Your task to perform on an android device: Go to Wikipedia Image 0: 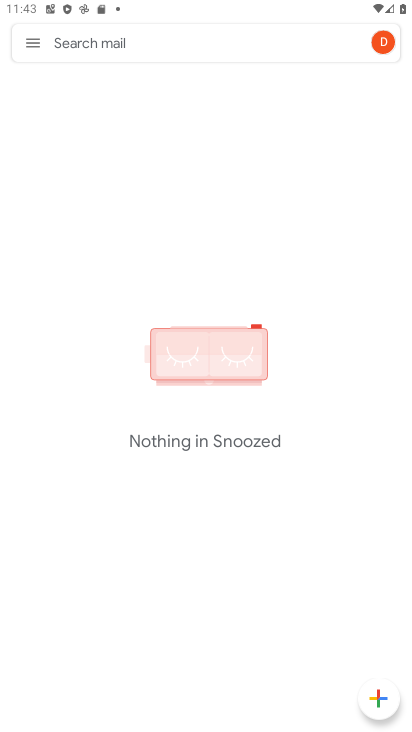
Step 0: press home button
Your task to perform on an android device: Go to Wikipedia Image 1: 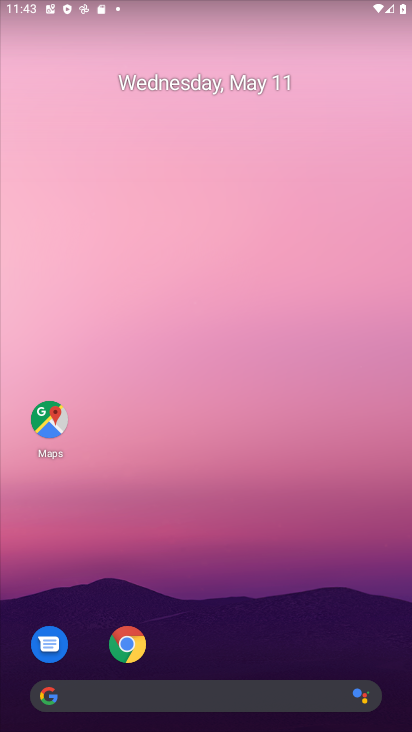
Step 1: drag from (218, 647) to (195, 207)
Your task to perform on an android device: Go to Wikipedia Image 2: 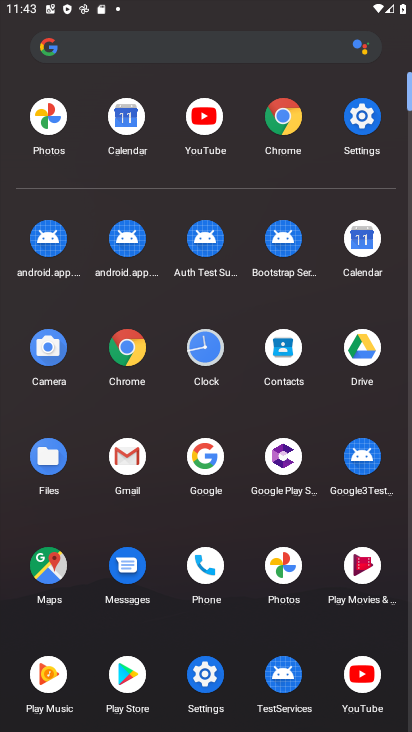
Step 2: click (278, 137)
Your task to perform on an android device: Go to Wikipedia Image 3: 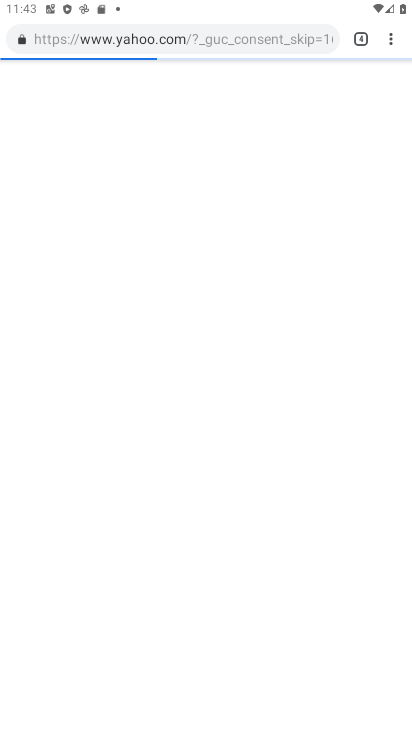
Step 3: click (361, 30)
Your task to perform on an android device: Go to Wikipedia Image 4: 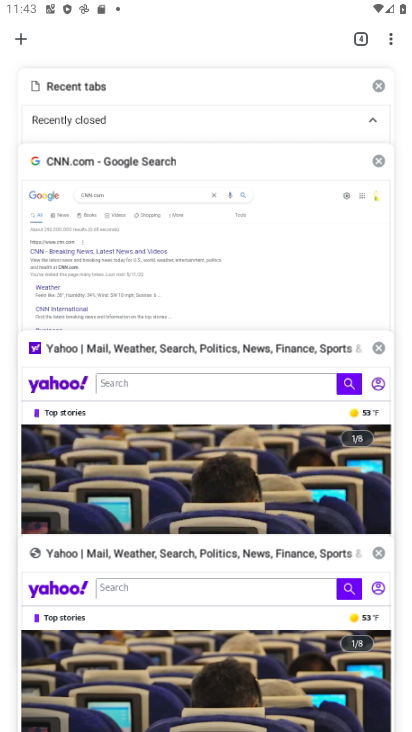
Step 4: click (8, 59)
Your task to perform on an android device: Go to Wikipedia Image 5: 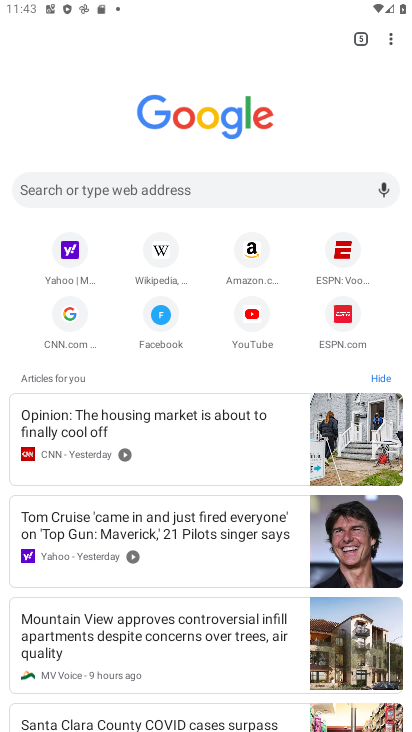
Step 5: click (168, 240)
Your task to perform on an android device: Go to Wikipedia Image 6: 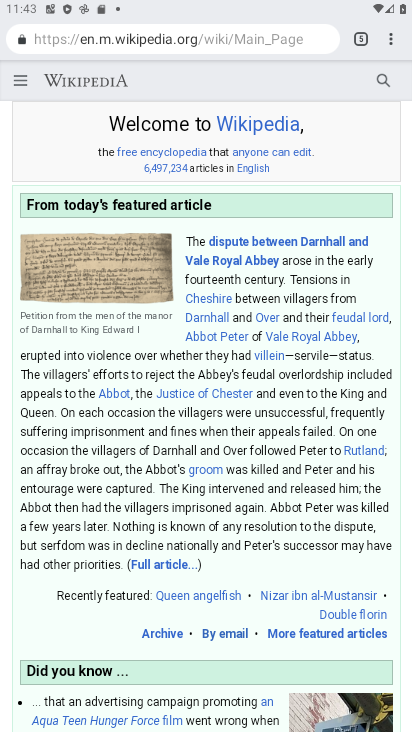
Step 6: task complete